Your task to perform on an android device: Search for sushi restaurants on Maps Image 0: 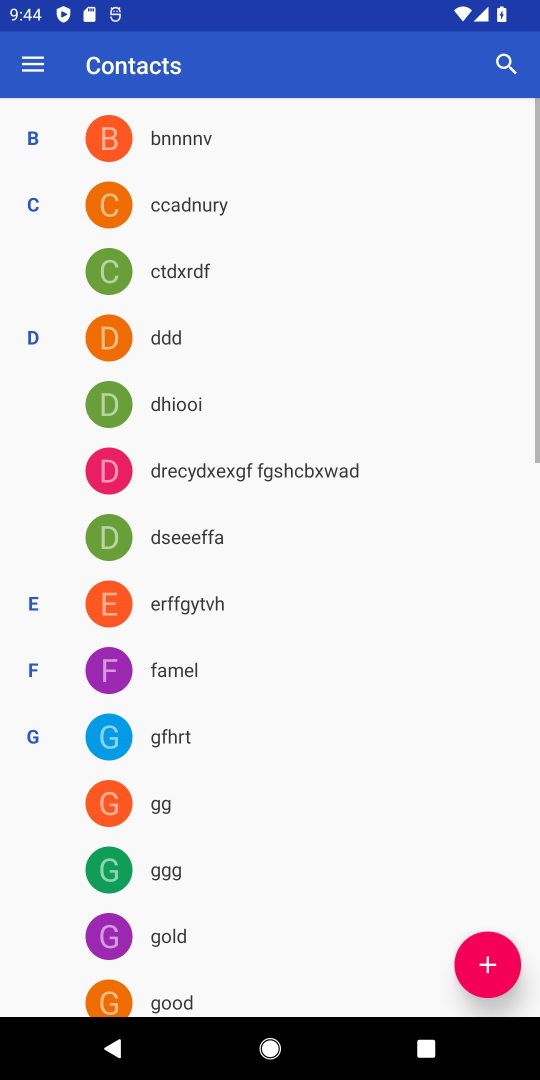
Step 0: press back button
Your task to perform on an android device: Search for sushi restaurants on Maps Image 1: 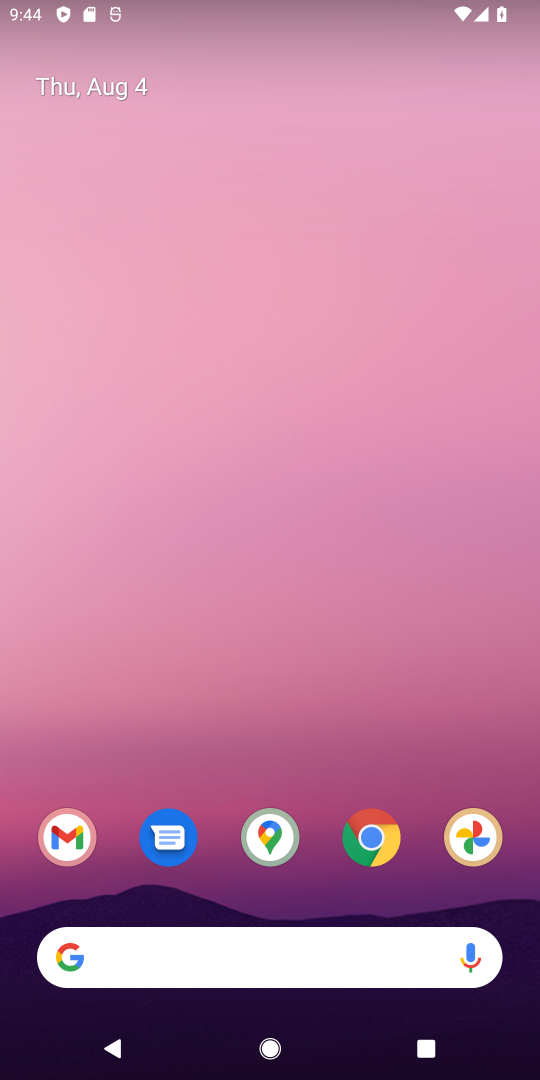
Step 1: drag from (328, 734) to (125, 134)
Your task to perform on an android device: Search for sushi restaurants on Maps Image 2: 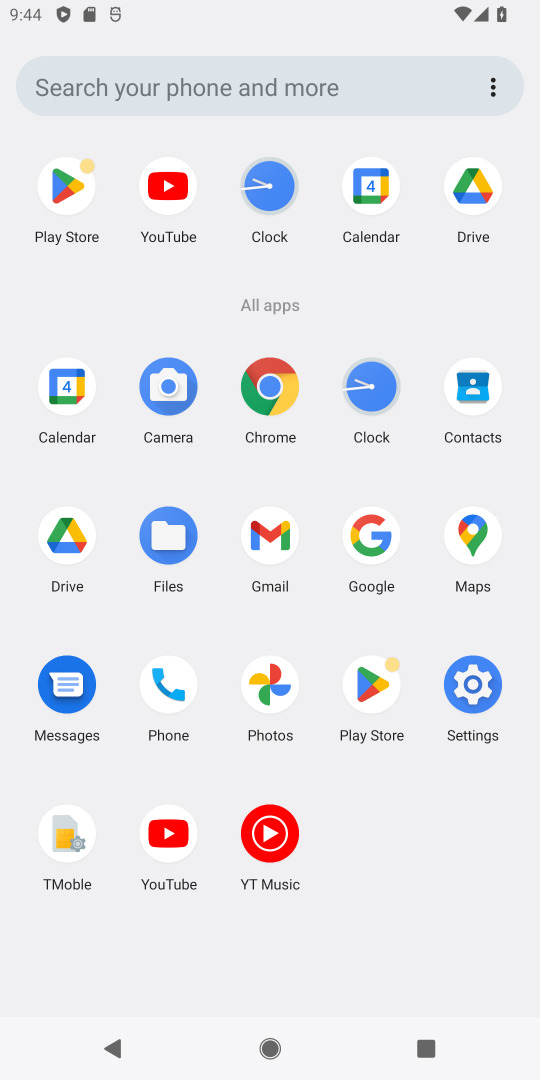
Step 2: click (462, 549)
Your task to perform on an android device: Search for sushi restaurants on Maps Image 3: 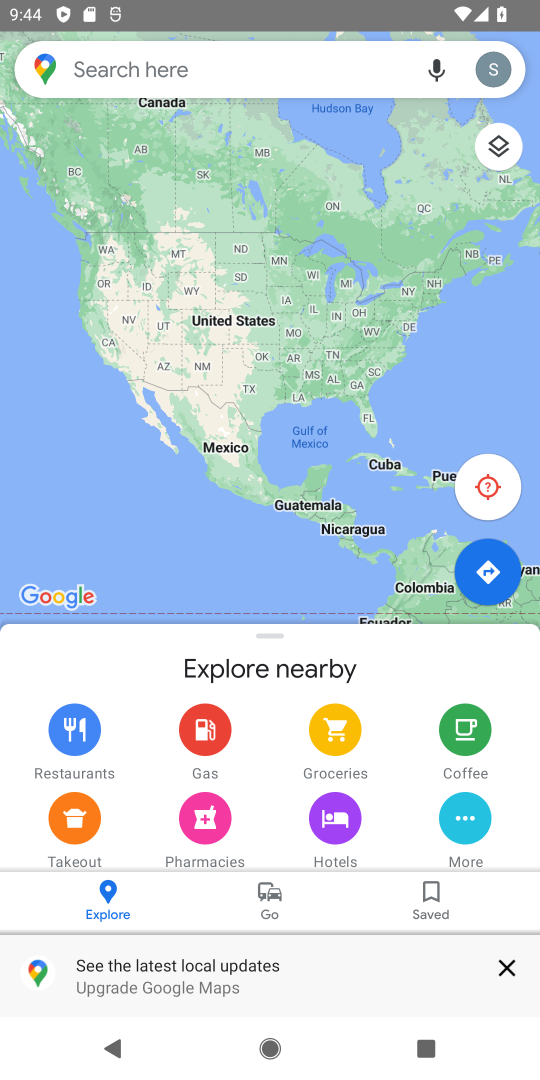
Step 3: click (191, 69)
Your task to perform on an android device: Search for sushi restaurants on Maps Image 4: 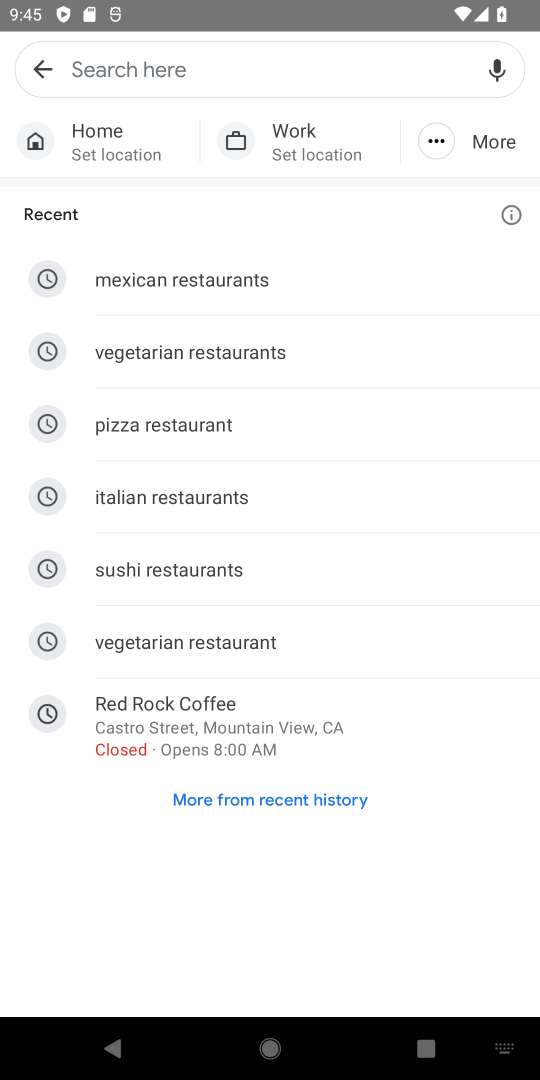
Step 4: click (127, 565)
Your task to perform on an android device: Search for sushi restaurants on Maps Image 5: 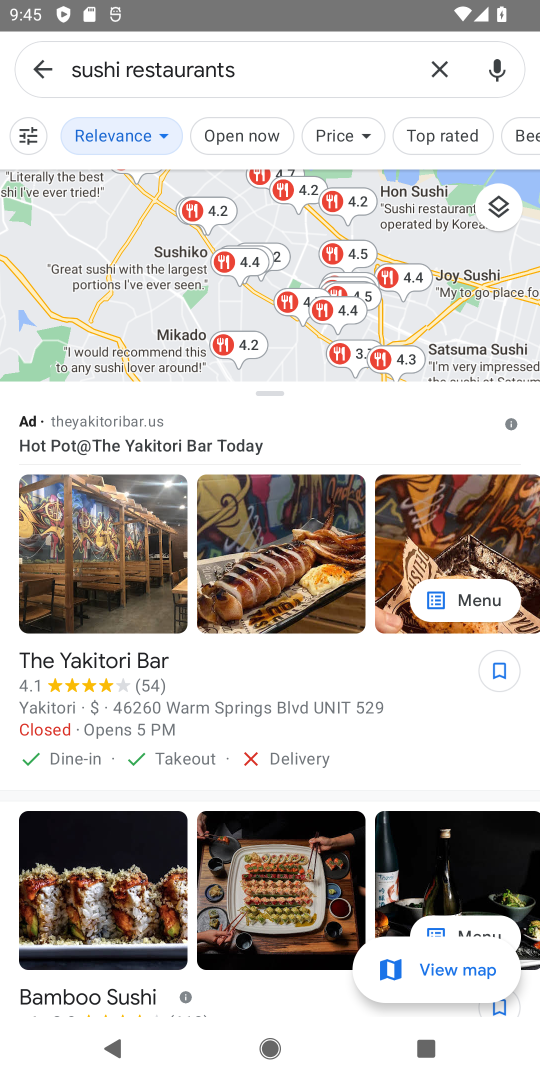
Step 5: task complete